Your task to perform on an android device: Clear all items from cart on amazon. Add razer blade to the cart on amazon, then select checkout. Image 0: 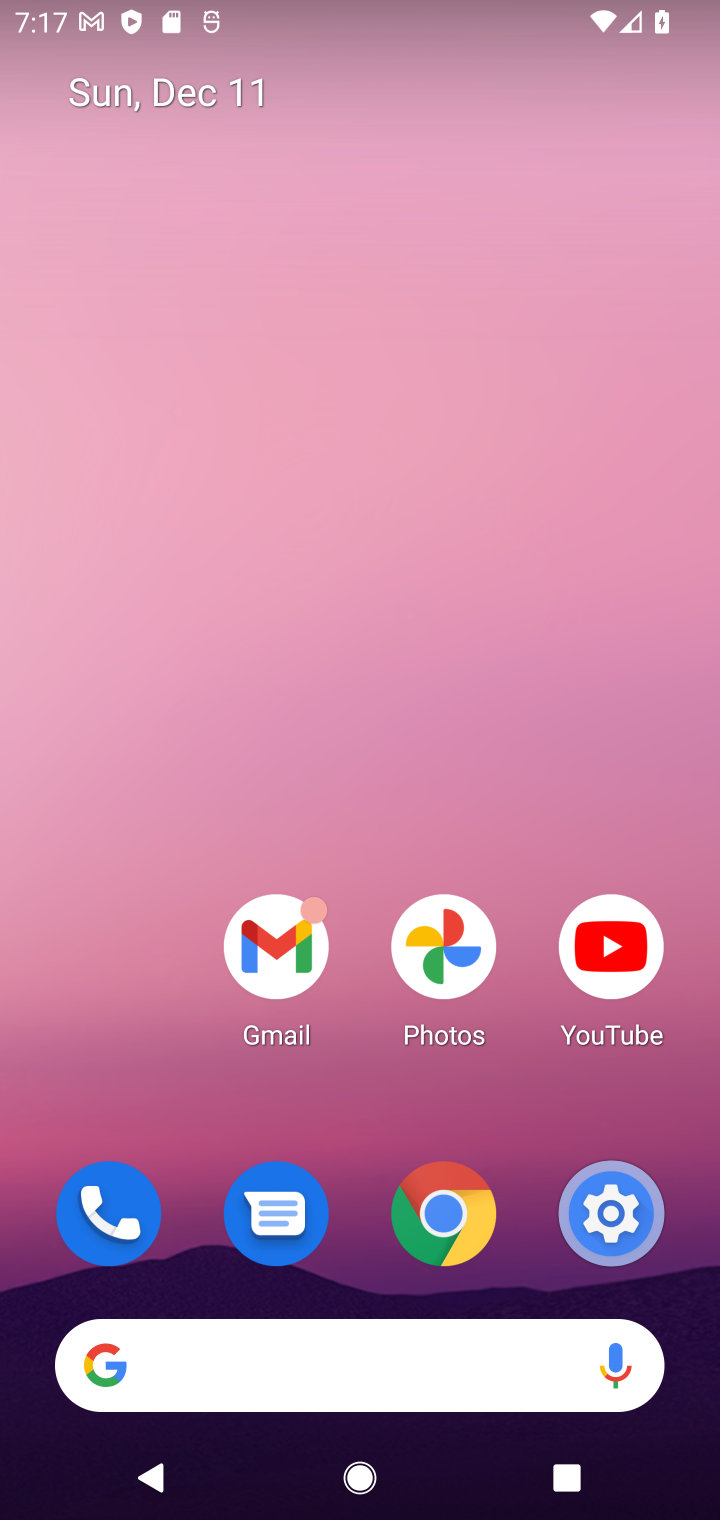
Step 0: click (480, 1381)
Your task to perform on an android device: Clear all items from cart on amazon. Add razer blade to the cart on amazon, then select checkout. Image 1: 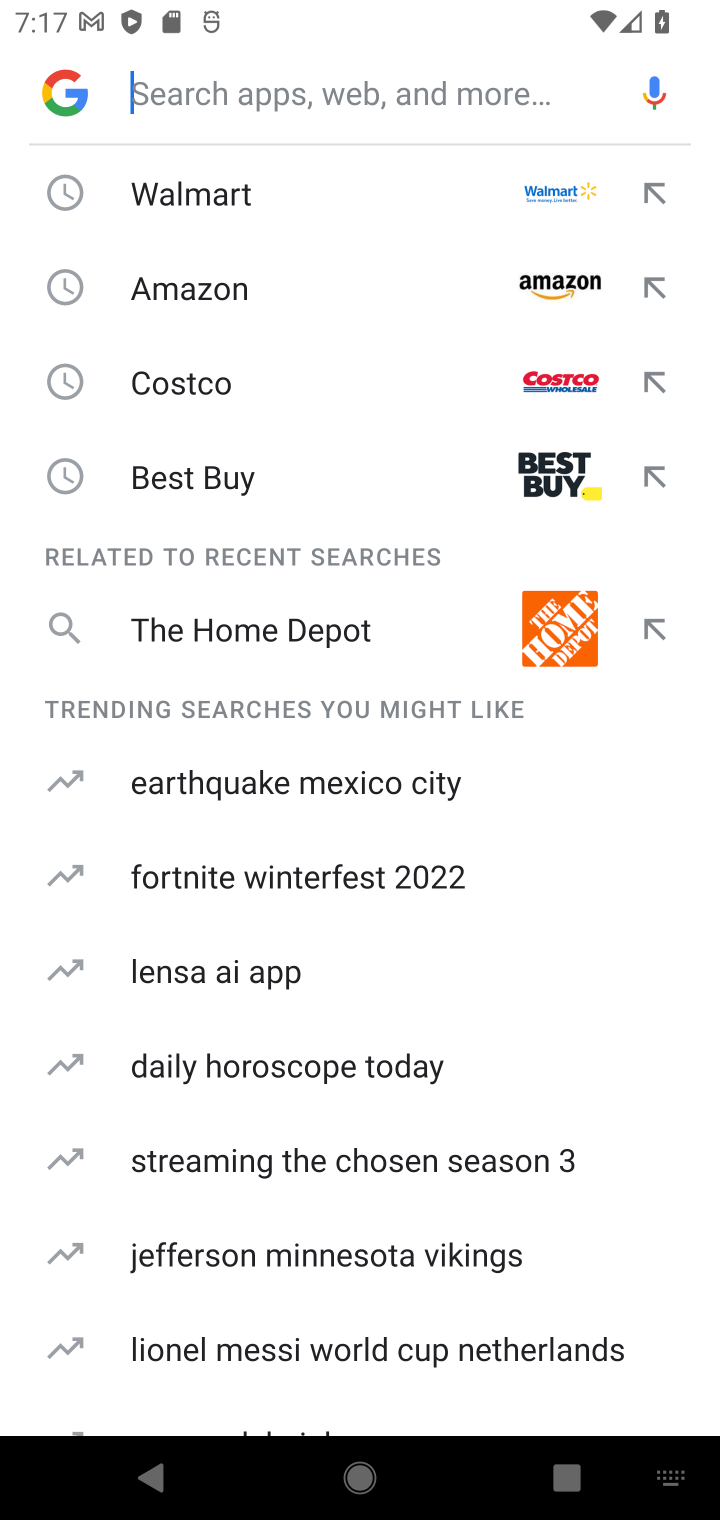
Step 1: click (204, 310)
Your task to perform on an android device: Clear all items from cart on amazon. Add razer blade to the cart on amazon, then select checkout. Image 2: 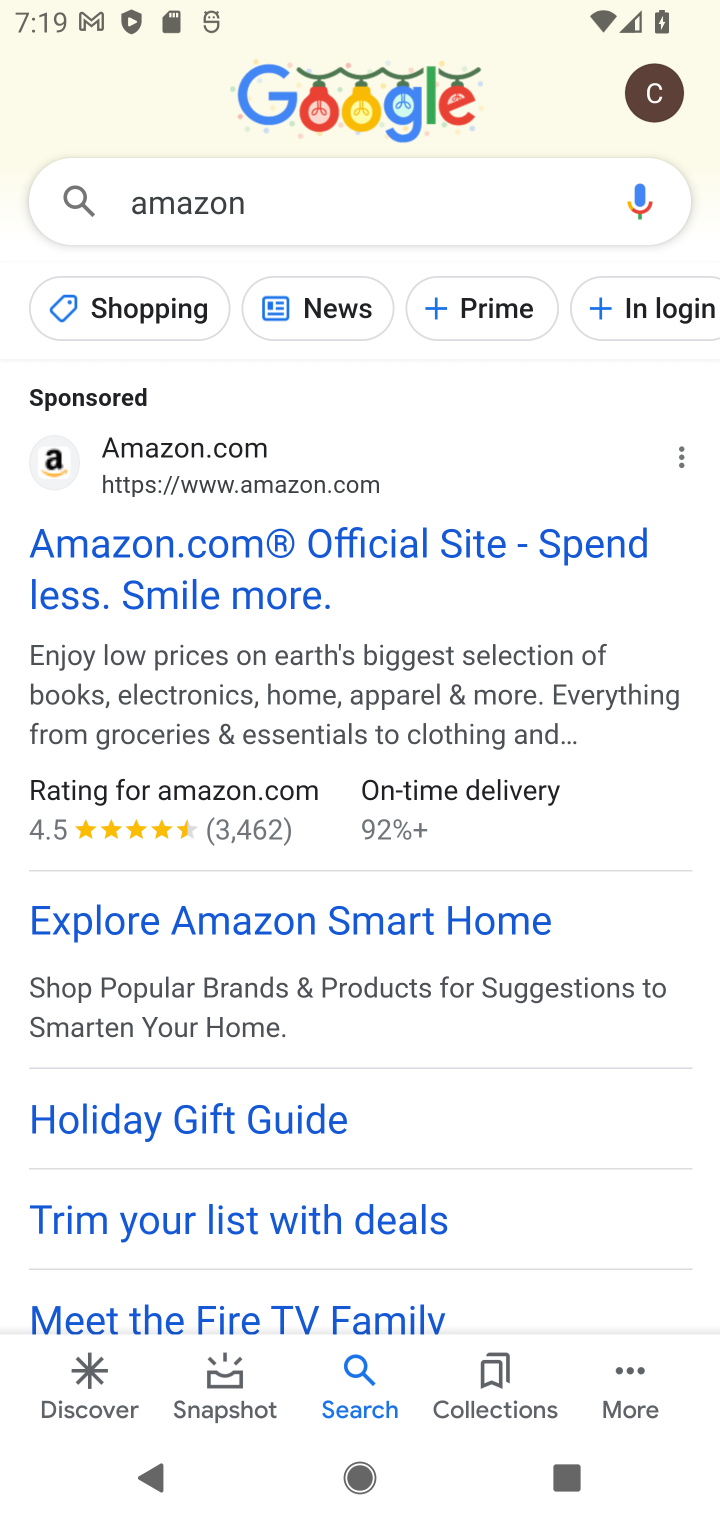
Step 2: click (276, 589)
Your task to perform on an android device: Clear all items from cart on amazon. Add razer blade to the cart on amazon, then select checkout. Image 3: 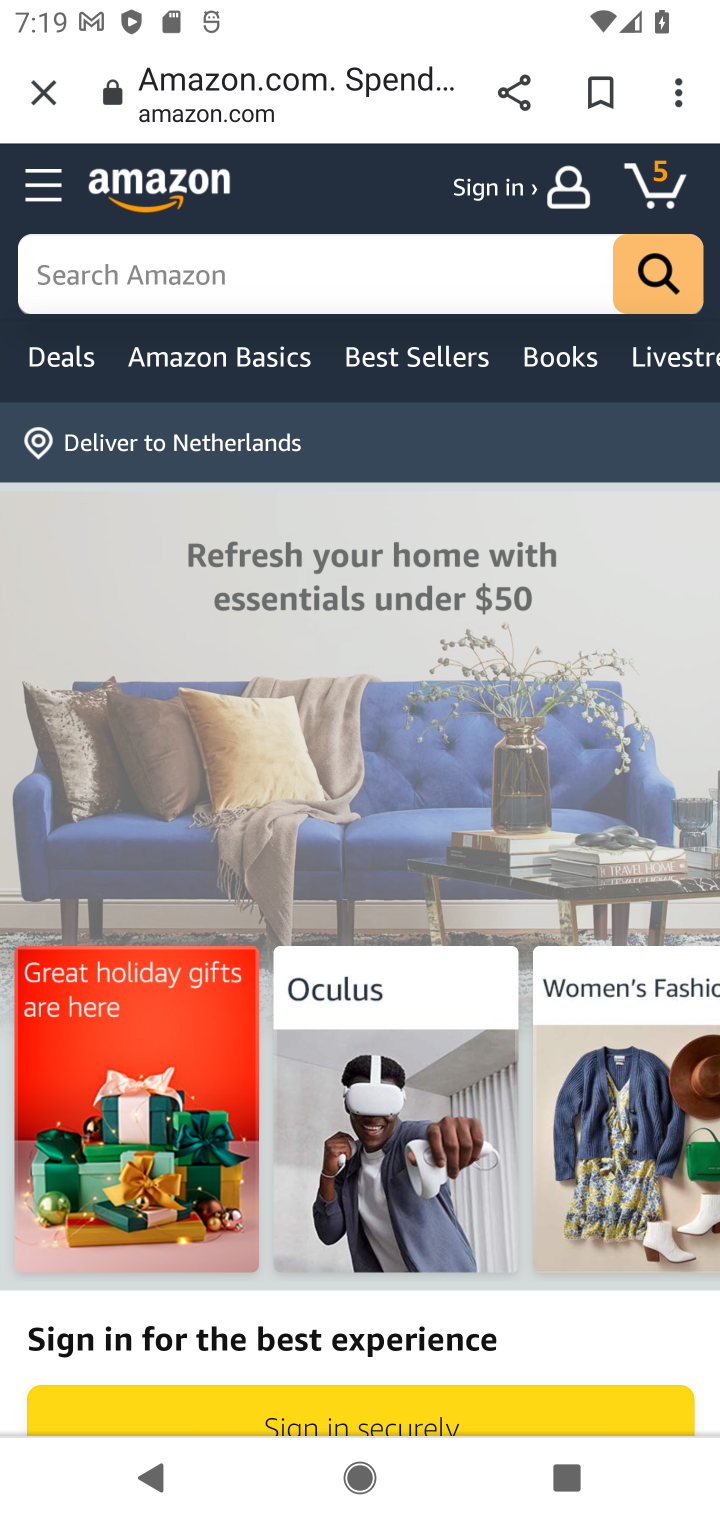
Step 3: click (57, 264)
Your task to perform on an android device: Clear all items from cart on amazon. Add razer blade to the cart on amazon, then select checkout. Image 4: 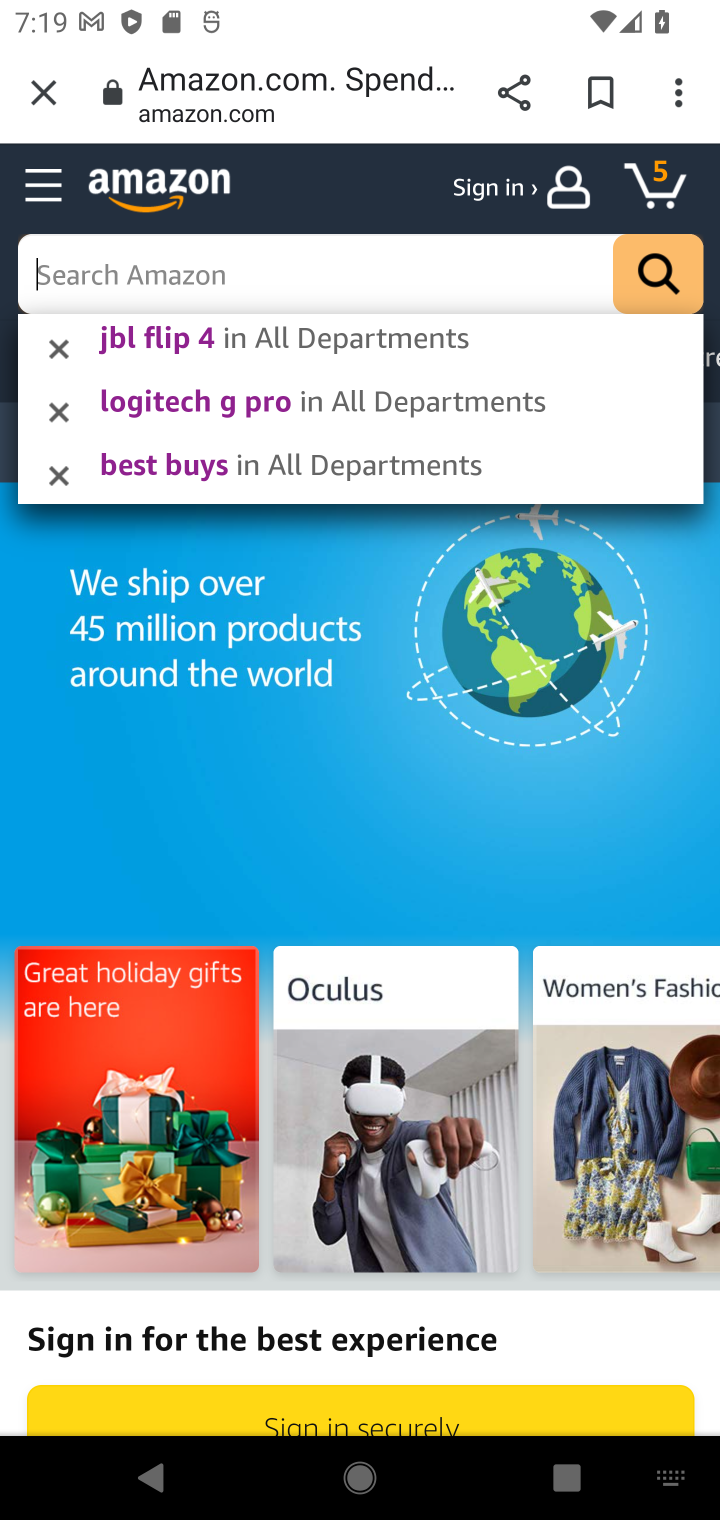
Step 4: type "razer blade"
Your task to perform on an android device: Clear all items from cart on amazon. Add razer blade to the cart on amazon, then select checkout. Image 5: 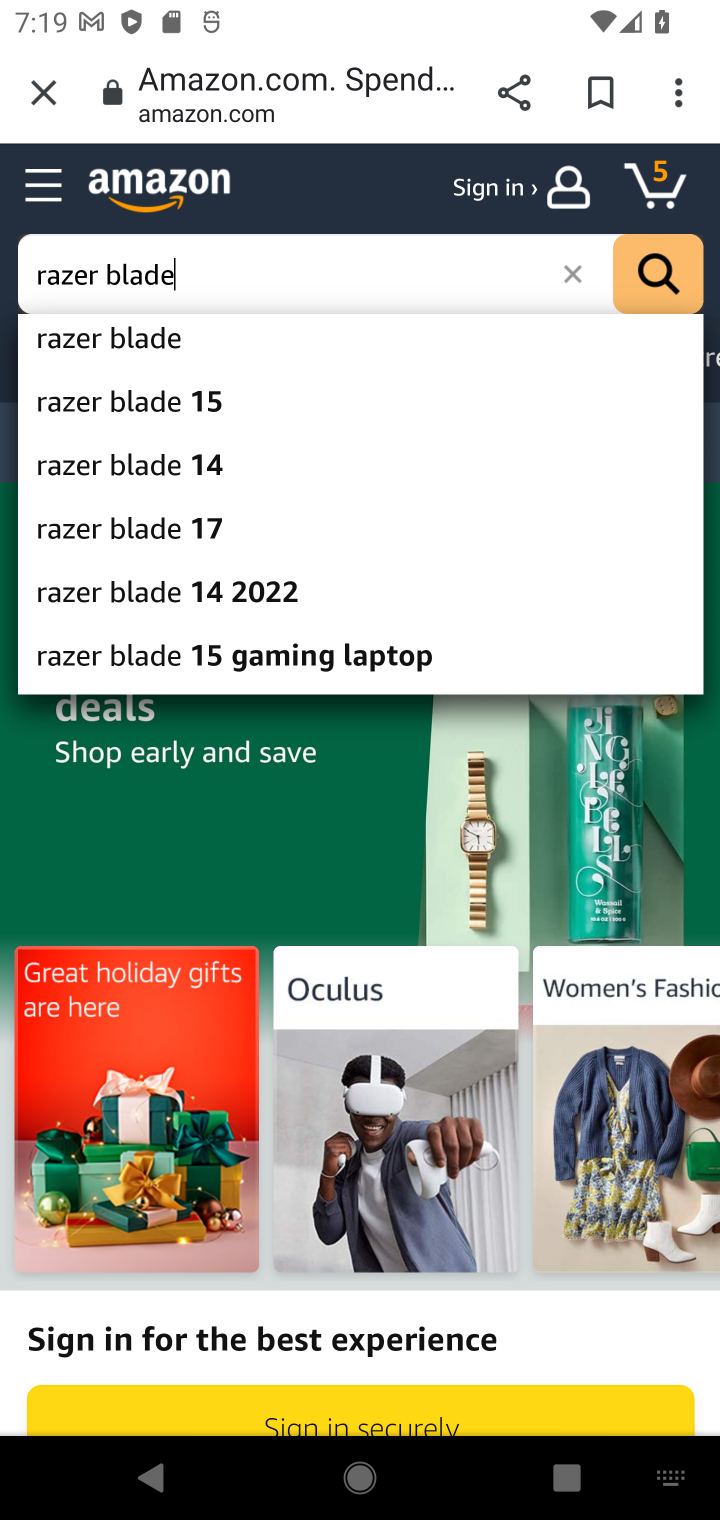
Step 5: click (637, 264)
Your task to perform on an android device: Clear all items from cart on amazon. Add razer blade to the cart on amazon, then select checkout. Image 6: 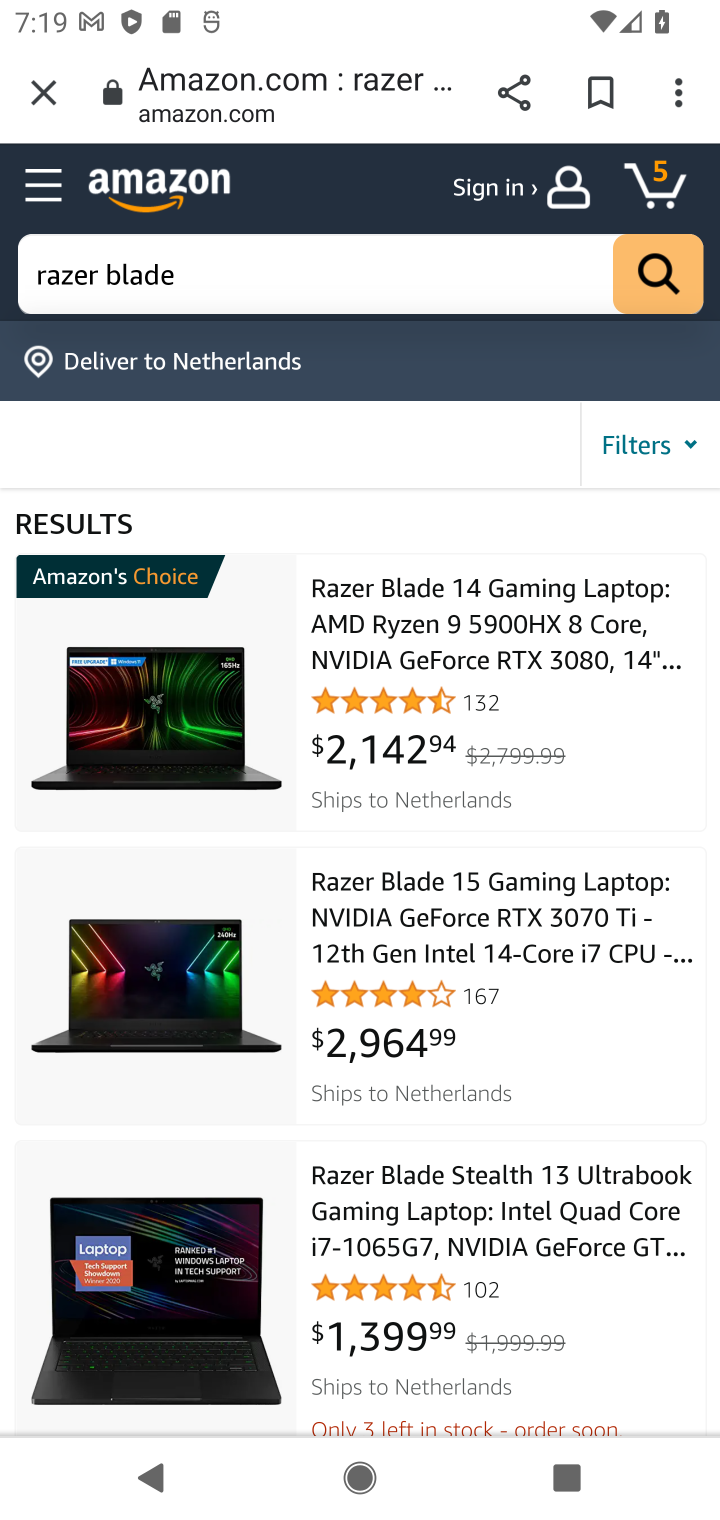
Step 6: click (322, 645)
Your task to perform on an android device: Clear all items from cart on amazon. Add razer blade to the cart on amazon, then select checkout. Image 7: 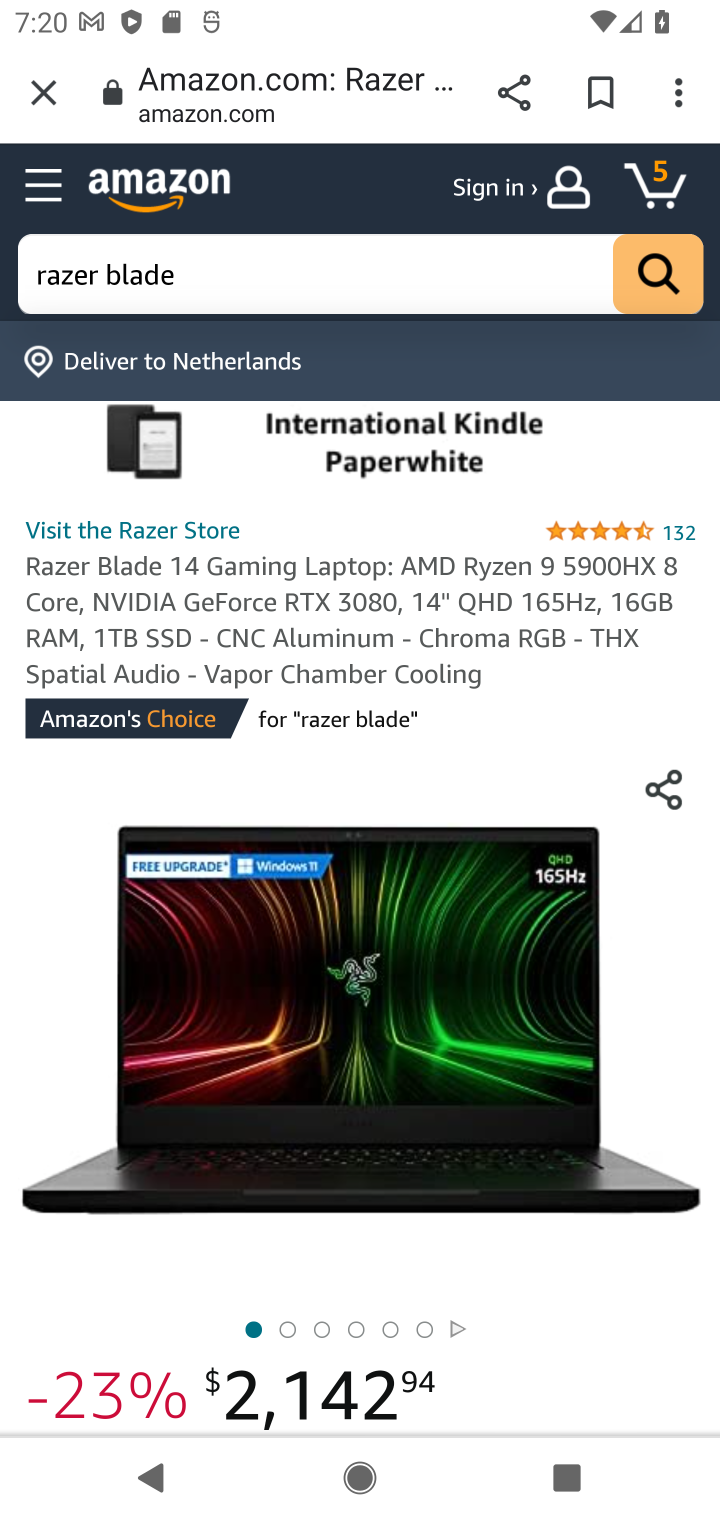
Step 7: drag from (266, 1257) to (145, 922)
Your task to perform on an android device: Clear all items from cart on amazon. Add razer blade to the cart on amazon, then select checkout. Image 8: 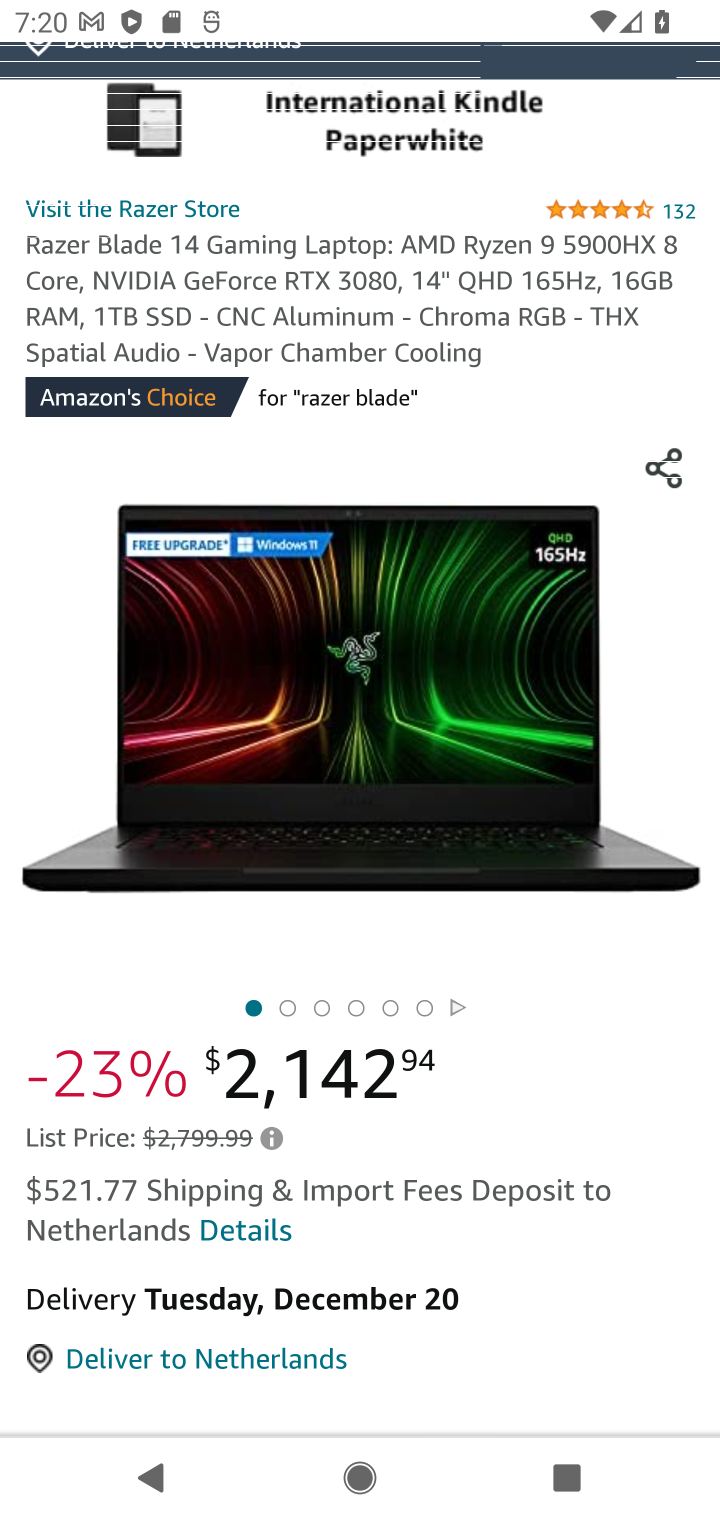
Step 8: drag from (391, 1244) to (386, 497)
Your task to perform on an android device: Clear all items from cart on amazon. Add razer blade to the cart on amazon, then select checkout. Image 9: 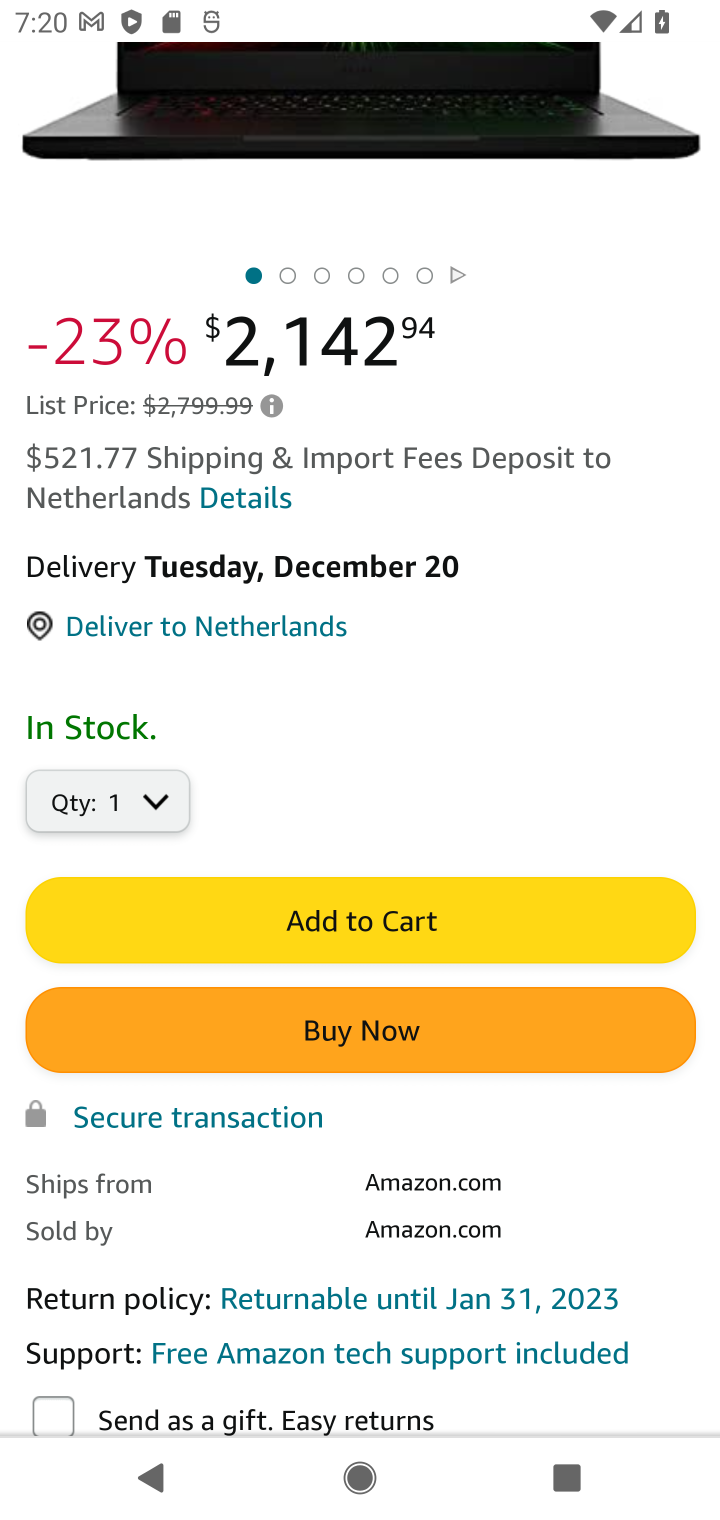
Step 9: click (408, 944)
Your task to perform on an android device: Clear all items from cart on amazon. Add razer blade to the cart on amazon, then select checkout. Image 10: 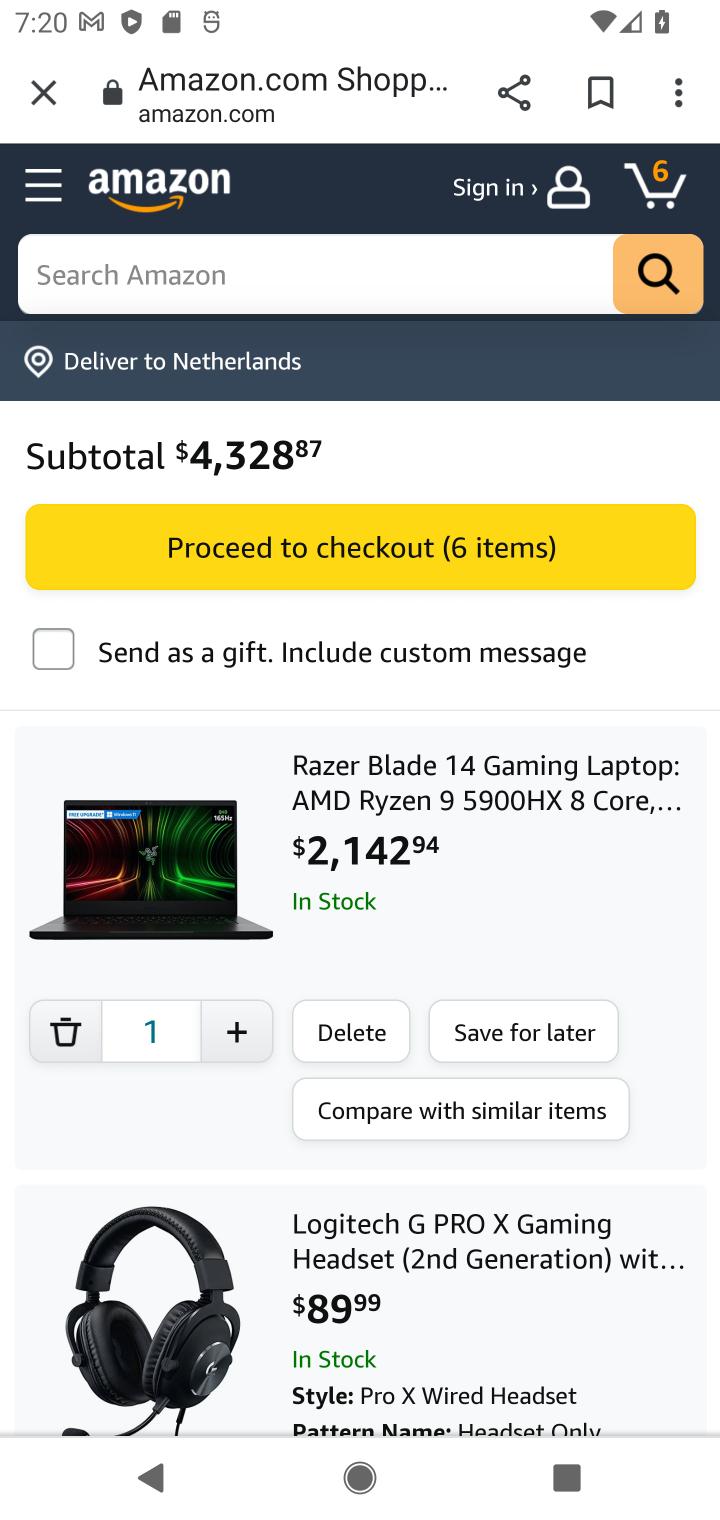
Step 10: task complete